Your task to perform on an android device: check data usage Image 0: 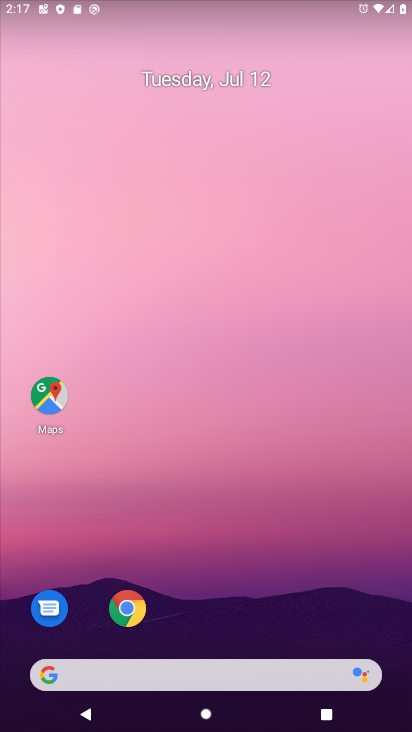
Step 0: drag from (328, 582) to (262, 124)
Your task to perform on an android device: check data usage Image 1: 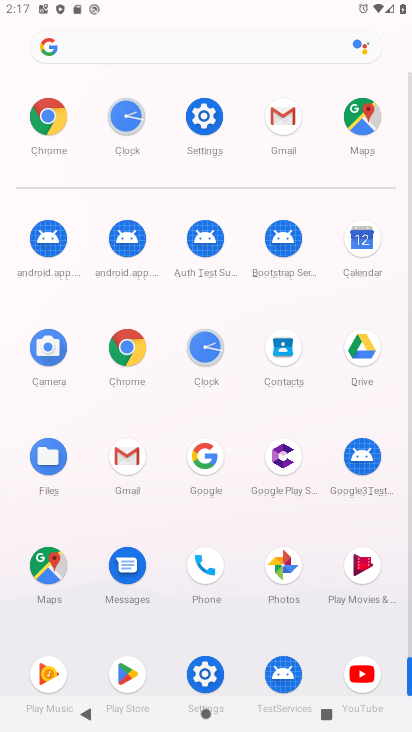
Step 1: click (205, 116)
Your task to perform on an android device: check data usage Image 2: 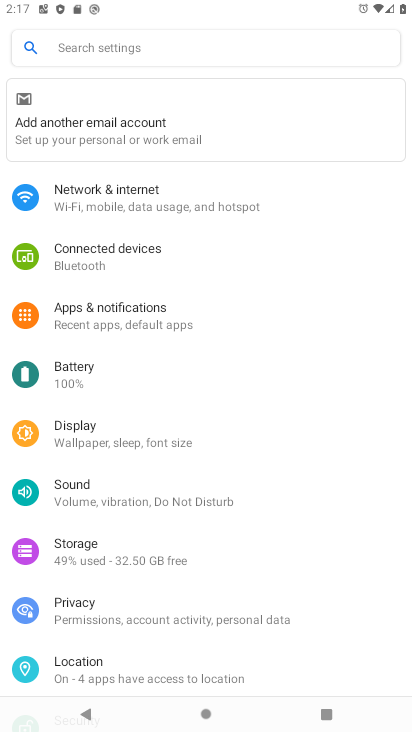
Step 2: click (135, 207)
Your task to perform on an android device: check data usage Image 3: 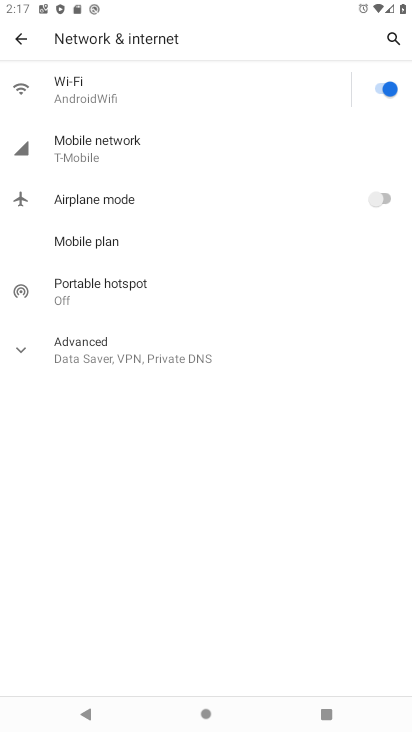
Step 3: click (120, 138)
Your task to perform on an android device: check data usage Image 4: 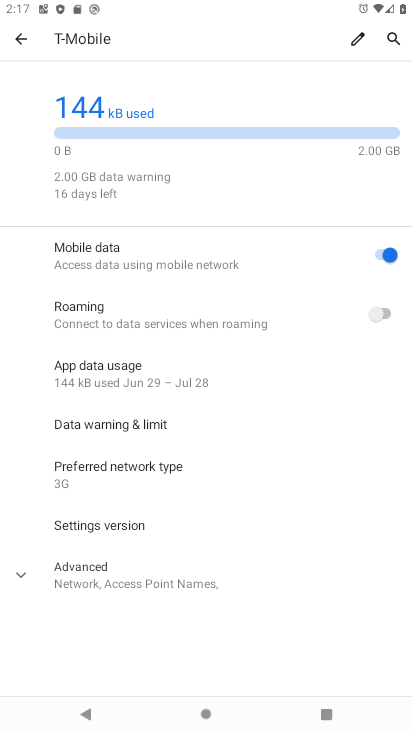
Step 4: task complete